Your task to perform on an android device: change the clock display to show seconds Image 0: 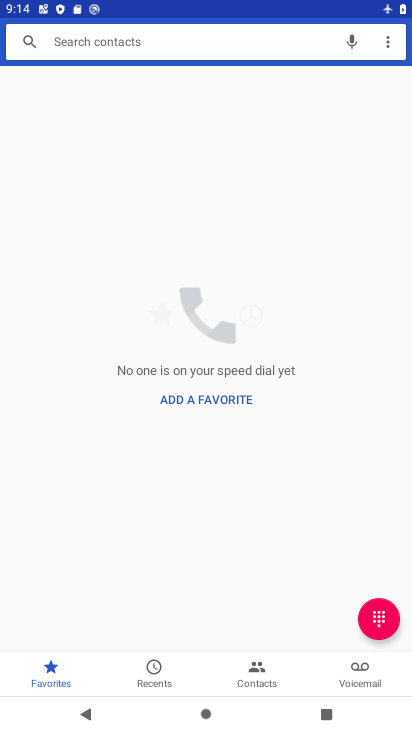
Step 0: press home button
Your task to perform on an android device: change the clock display to show seconds Image 1: 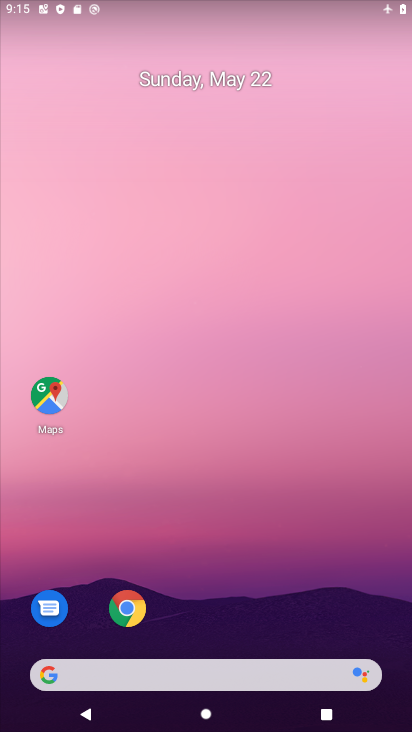
Step 1: drag from (265, 556) to (219, 85)
Your task to perform on an android device: change the clock display to show seconds Image 2: 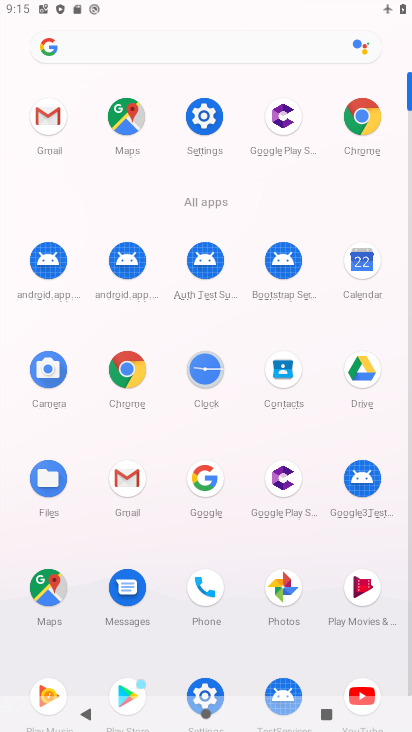
Step 2: click (213, 366)
Your task to perform on an android device: change the clock display to show seconds Image 3: 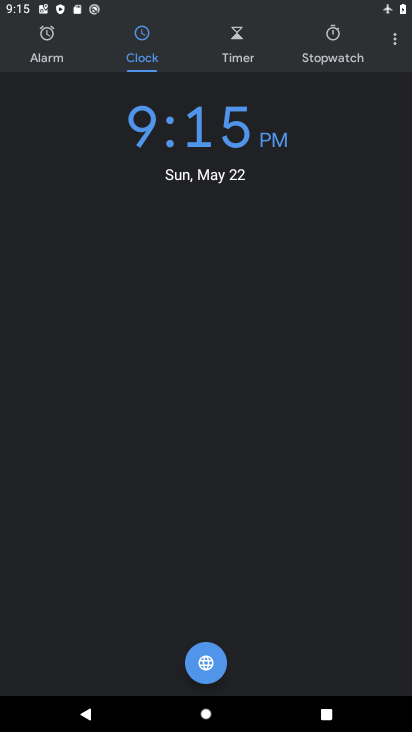
Step 3: click (395, 31)
Your task to perform on an android device: change the clock display to show seconds Image 4: 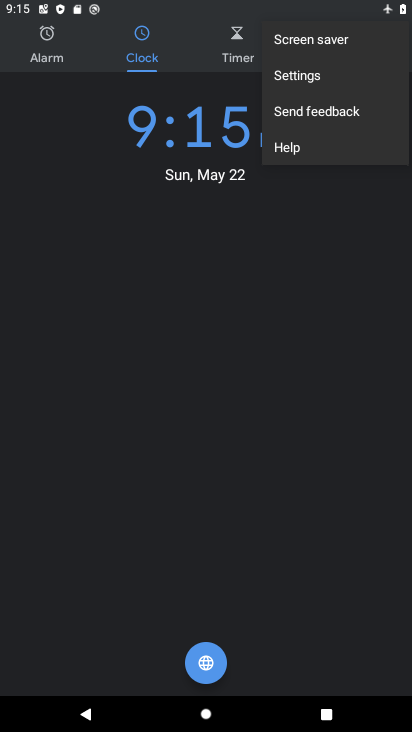
Step 4: click (312, 81)
Your task to perform on an android device: change the clock display to show seconds Image 5: 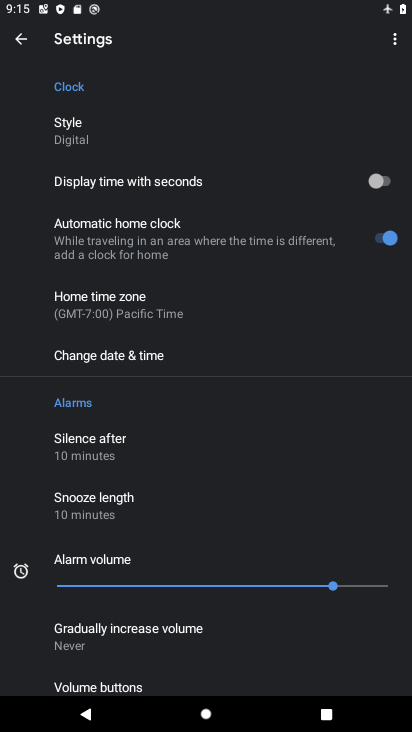
Step 5: click (380, 176)
Your task to perform on an android device: change the clock display to show seconds Image 6: 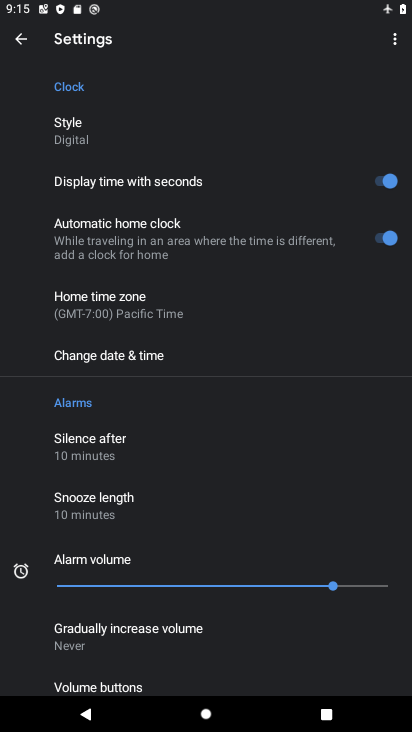
Step 6: task complete